Your task to perform on an android device: Open network settings Image 0: 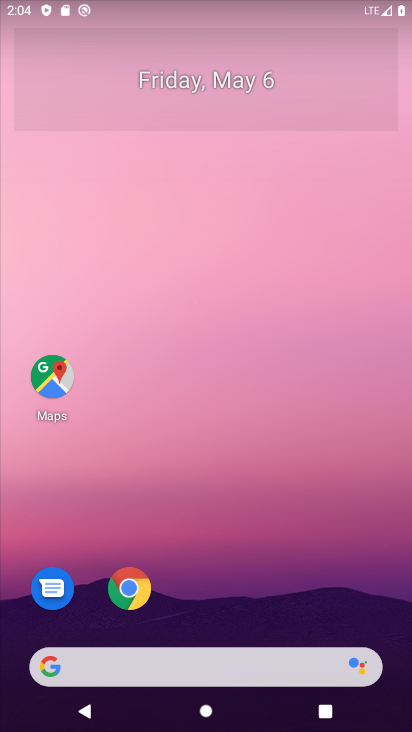
Step 0: drag from (362, 634) to (290, 191)
Your task to perform on an android device: Open network settings Image 1: 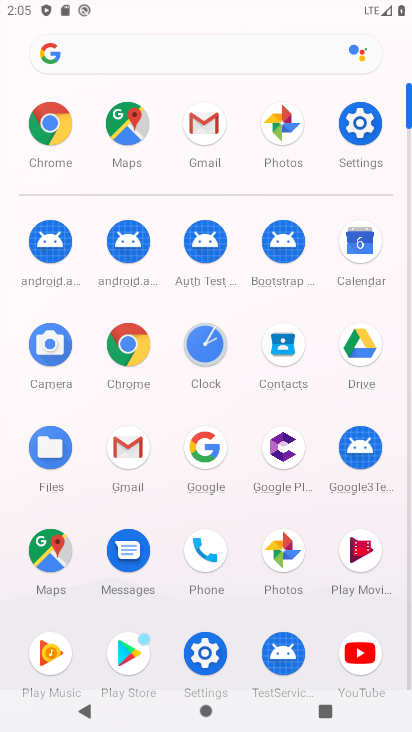
Step 1: click (353, 128)
Your task to perform on an android device: Open network settings Image 2: 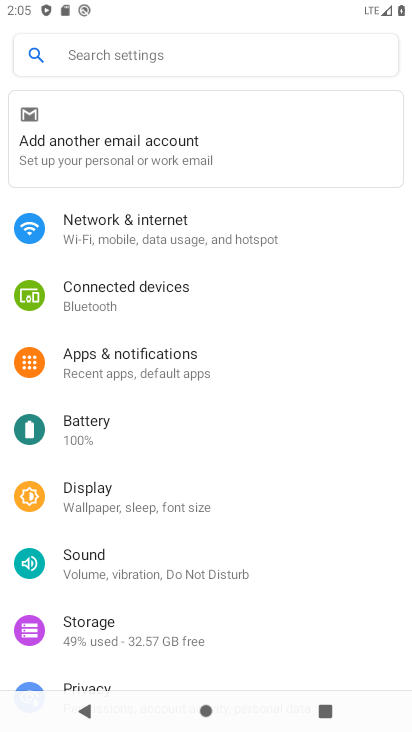
Step 2: click (200, 243)
Your task to perform on an android device: Open network settings Image 3: 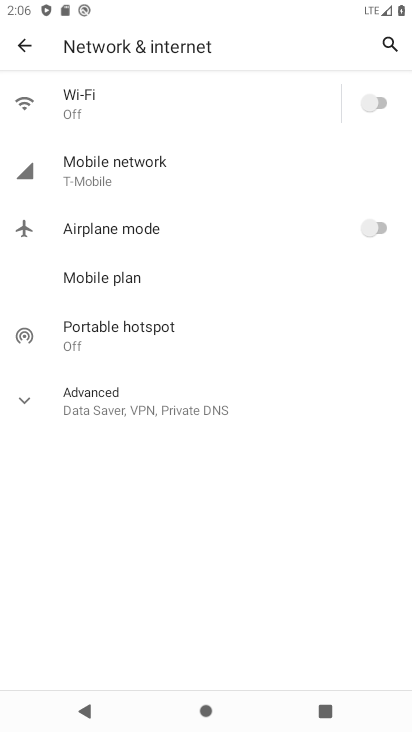
Step 3: task complete